Your task to perform on an android device: Open location settings Image 0: 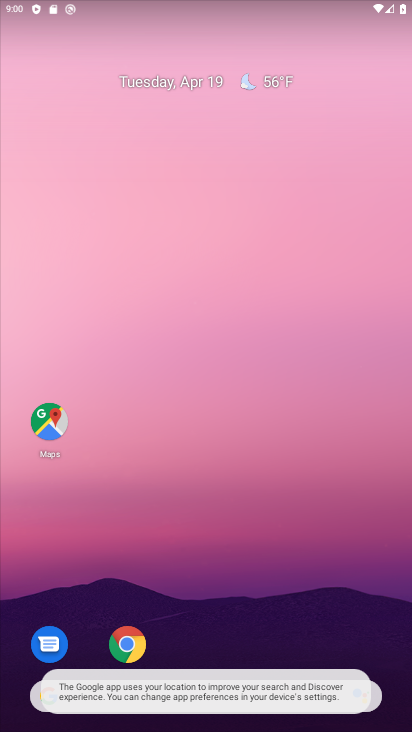
Step 0: drag from (211, 642) to (235, 131)
Your task to perform on an android device: Open location settings Image 1: 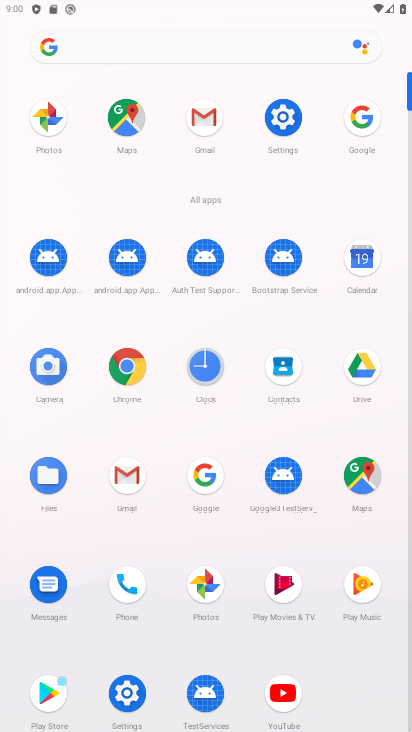
Step 1: click (288, 131)
Your task to perform on an android device: Open location settings Image 2: 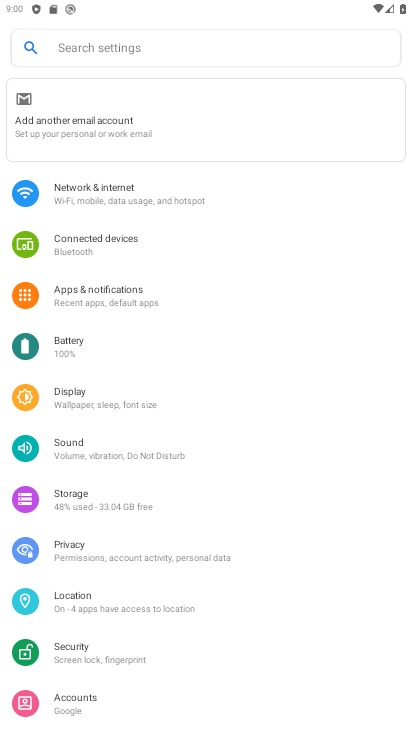
Step 2: click (121, 595)
Your task to perform on an android device: Open location settings Image 3: 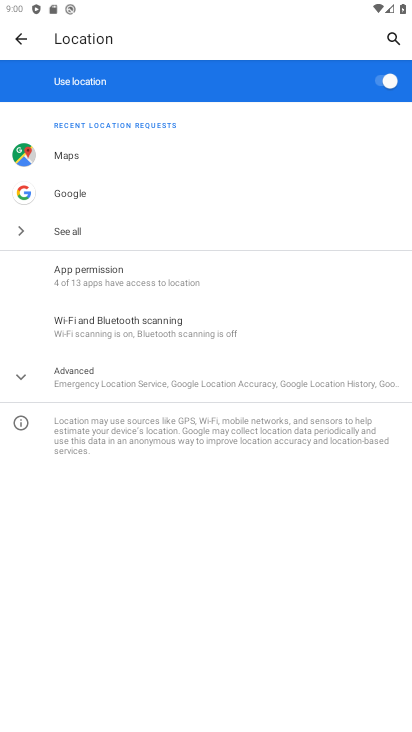
Step 3: task complete